Your task to perform on an android device: check the backup settings in the google photos Image 0: 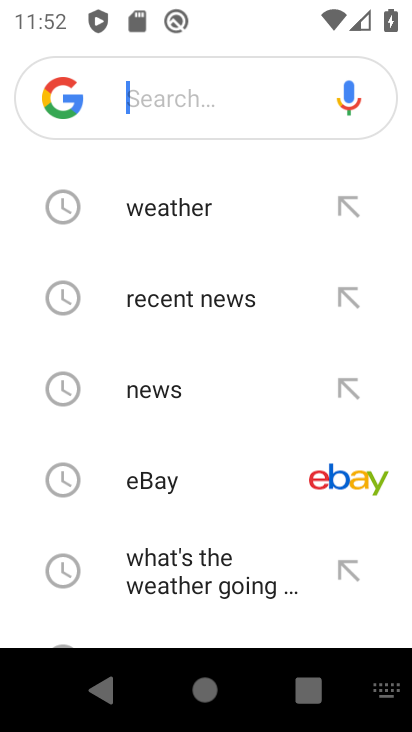
Step 0: press home button
Your task to perform on an android device: check the backup settings in the google photos Image 1: 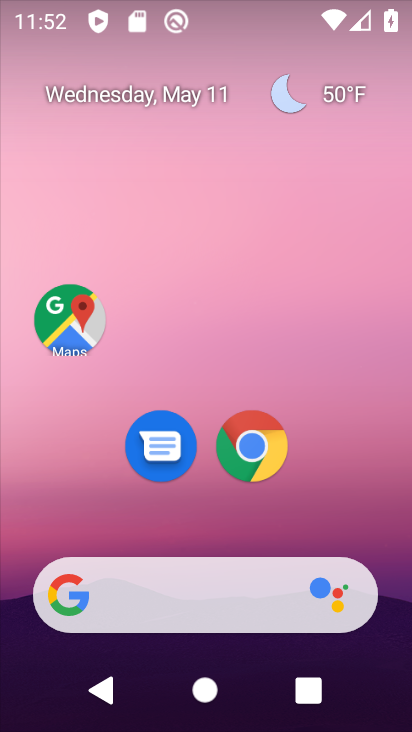
Step 1: drag from (314, 509) to (252, 268)
Your task to perform on an android device: check the backup settings in the google photos Image 2: 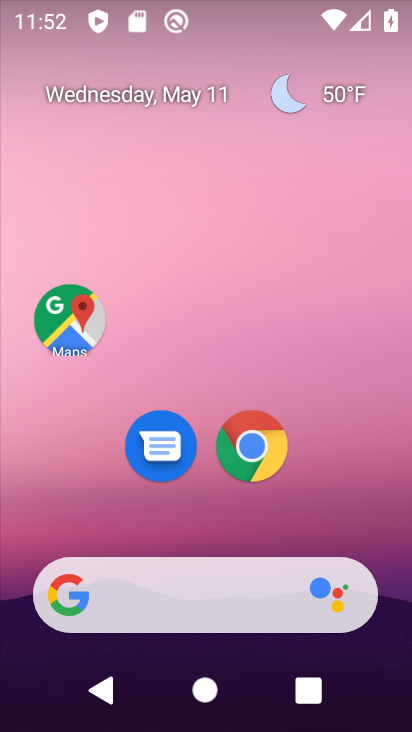
Step 2: drag from (334, 489) to (280, 158)
Your task to perform on an android device: check the backup settings in the google photos Image 3: 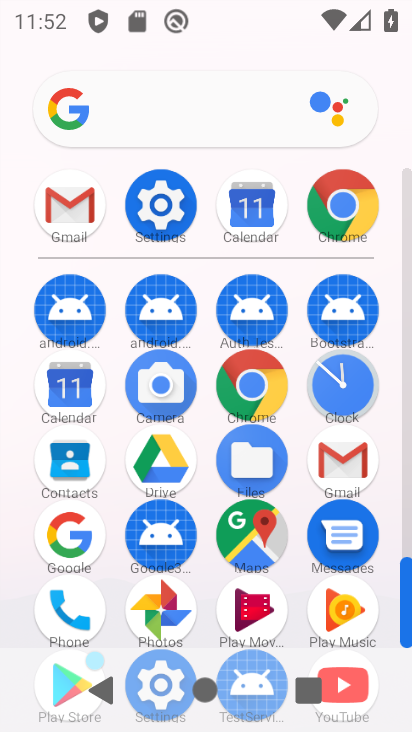
Step 3: click (154, 598)
Your task to perform on an android device: check the backup settings in the google photos Image 4: 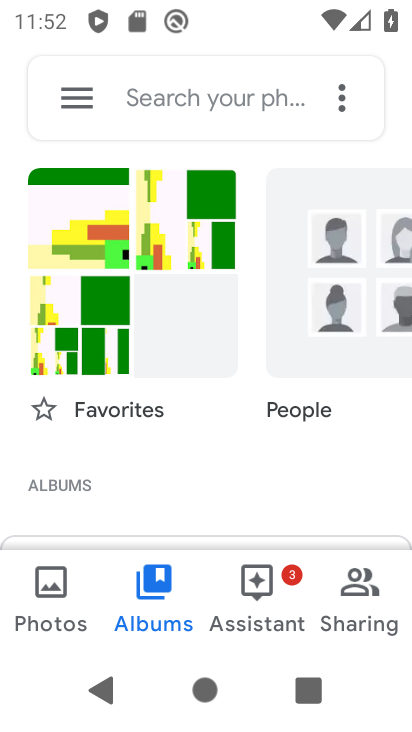
Step 4: click (70, 100)
Your task to perform on an android device: check the backup settings in the google photos Image 5: 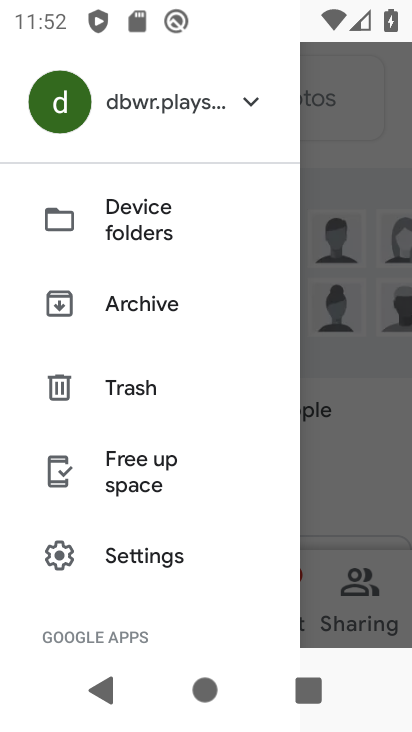
Step 5: click (163, 558)
Your task to perform on an android device: check the backup settings in the google photos Image 6: 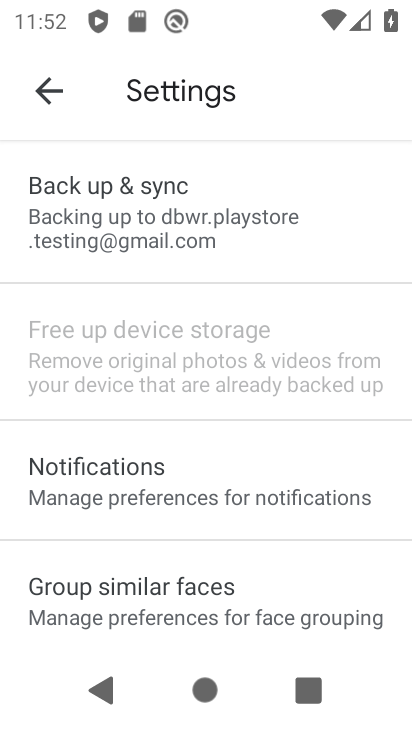
Step 6: click (115, 189)
Your task to perform on an android device: check the backup settings in the google photos Image 7: 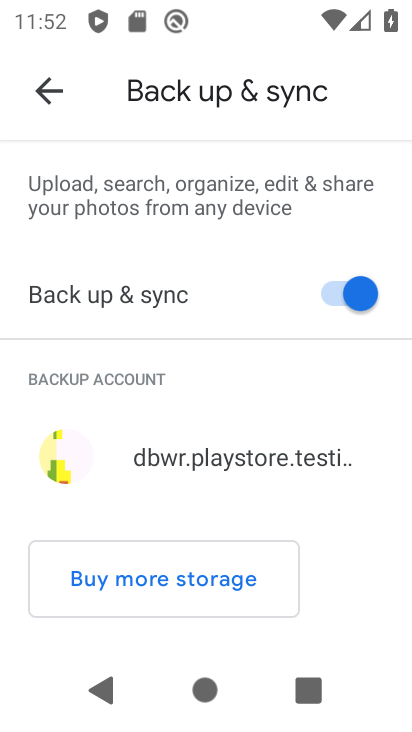
Step 7: task complete